Your task to perform on an android device: clear history in the chrome app Image 0: 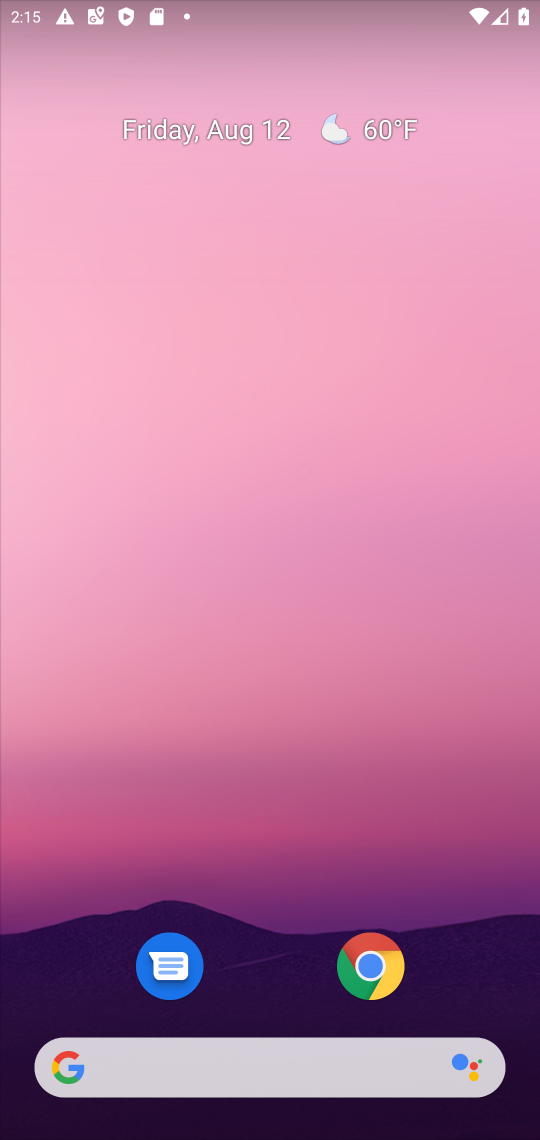
Step 0: drag from (250, 865) to (201, 136)
Your task to perform on an android device: clear history in the chrome app Image 1: 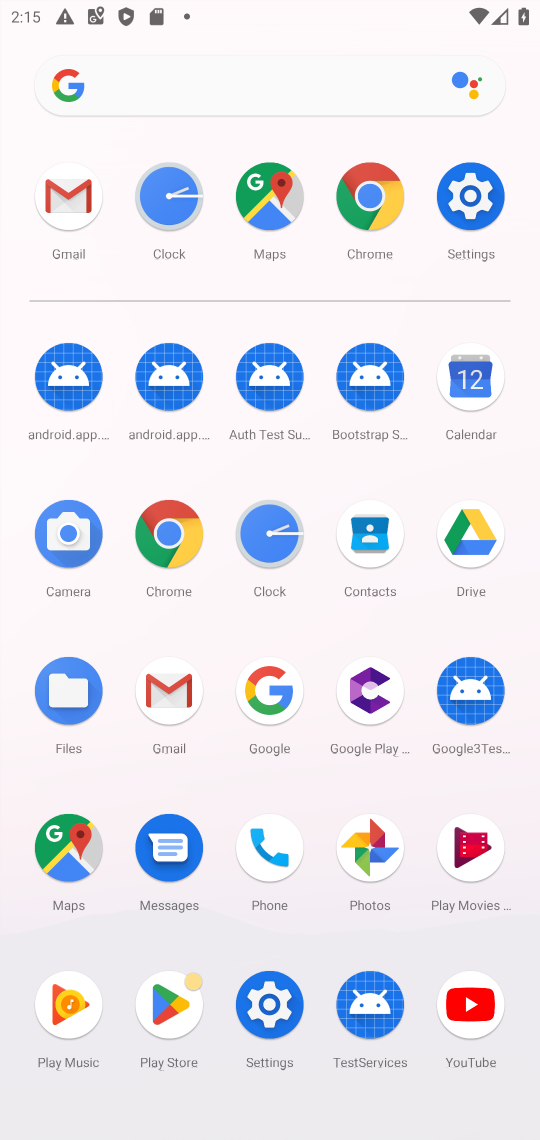
Step 1: click (160, 532)
Your task to perform on an android device: clear history in the chrome app Image 2: 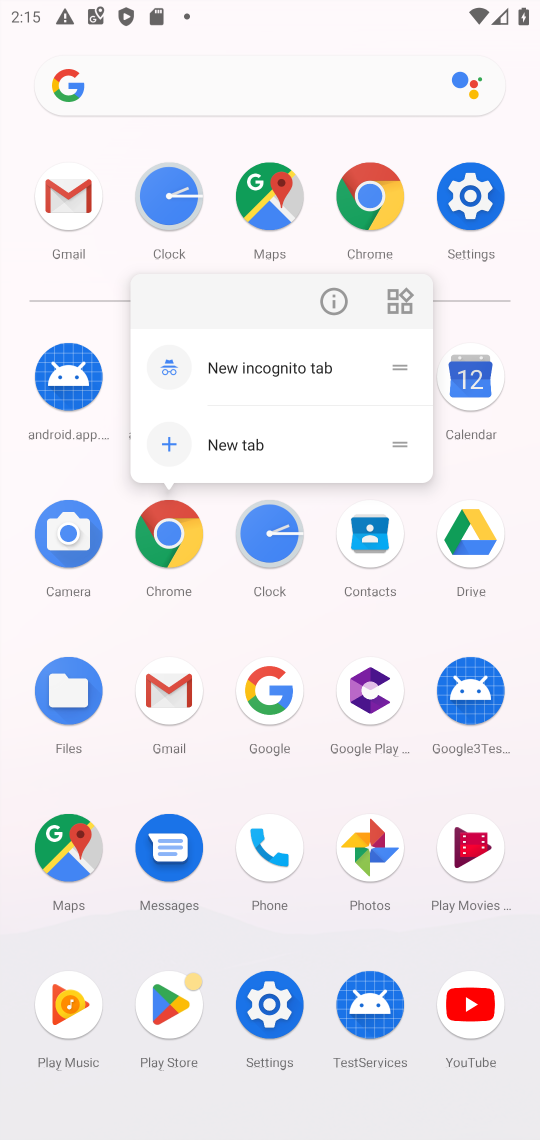
Step 2: click (171, 537)
Your task to perform on an android device: clear history in the chrome app Image 3: 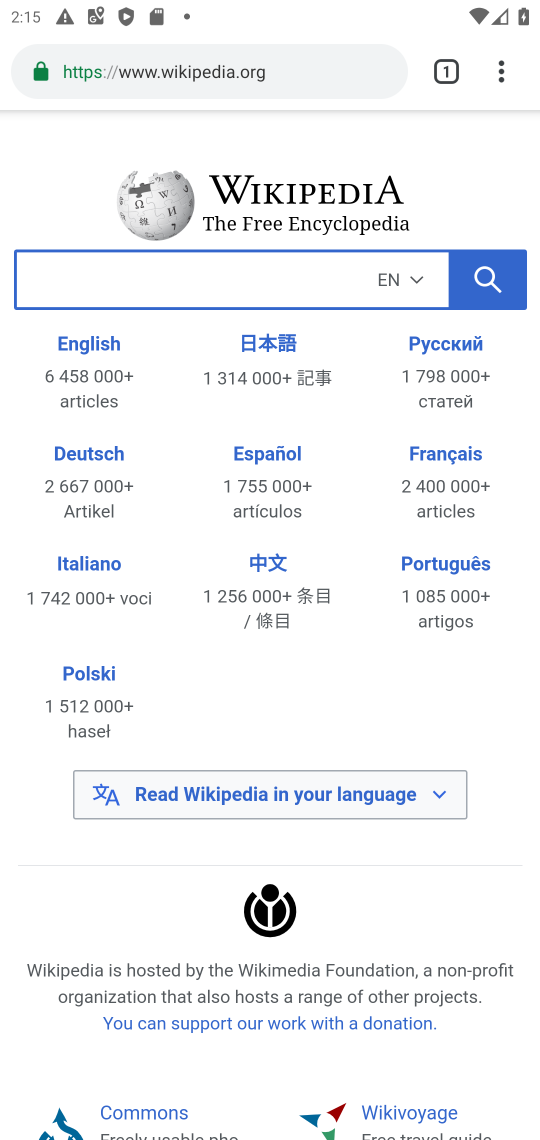
Step 3: task complete